Your task to perform on an android device: Clear the cart on newegg. Add dell xps to the cart on newegg Image 0: 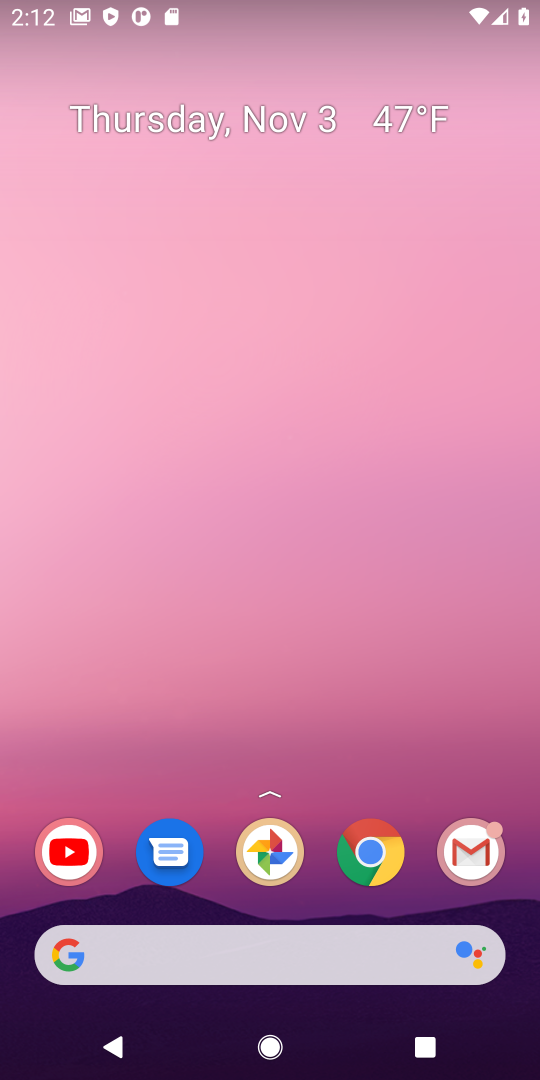
Step 0: click (363, 865)
Your task to perform on an android device: Clear the cart on newegg. Add dell xps to the cart on newegg Image 1: 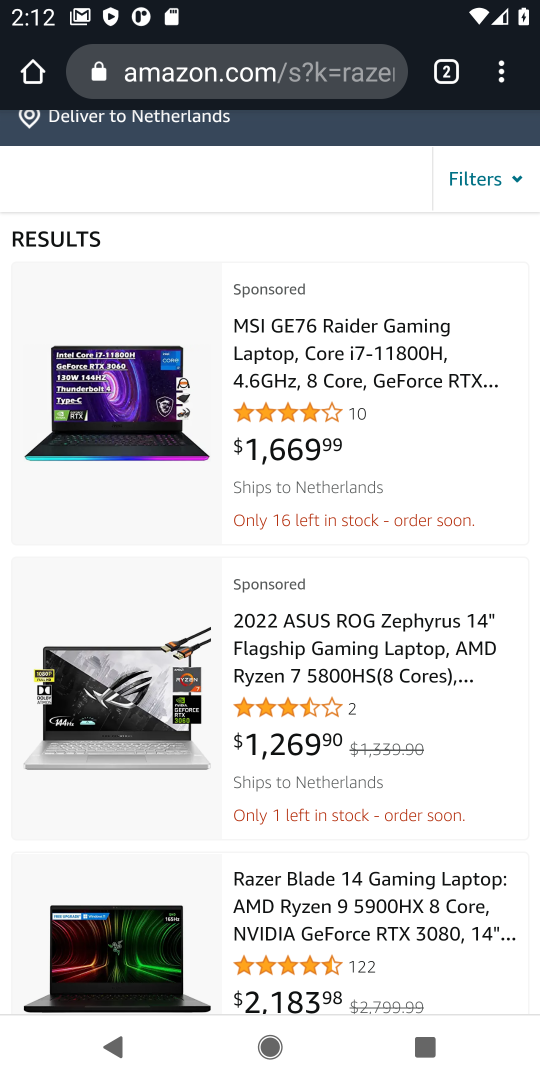
Step 1: click (196, 75)
Your task to perform on an android device: Clear the cart on newegg. Add dell xps to the cart on newegg Image 2: 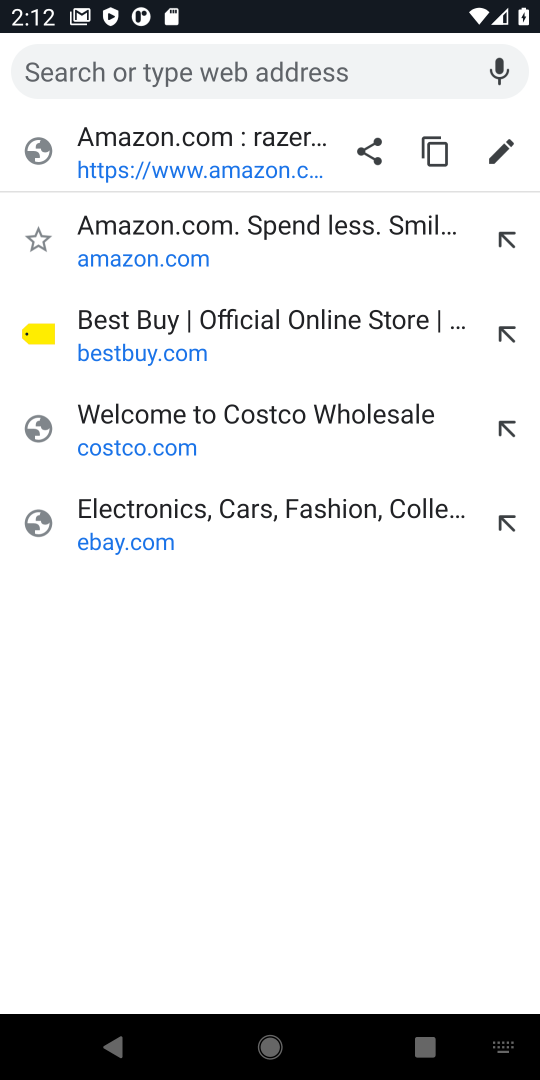
Step 2: type "newegg.com"
Your task to perform on an android device: Clear the cart on newegg. Add dell xps to the cart on newegg Image 3: 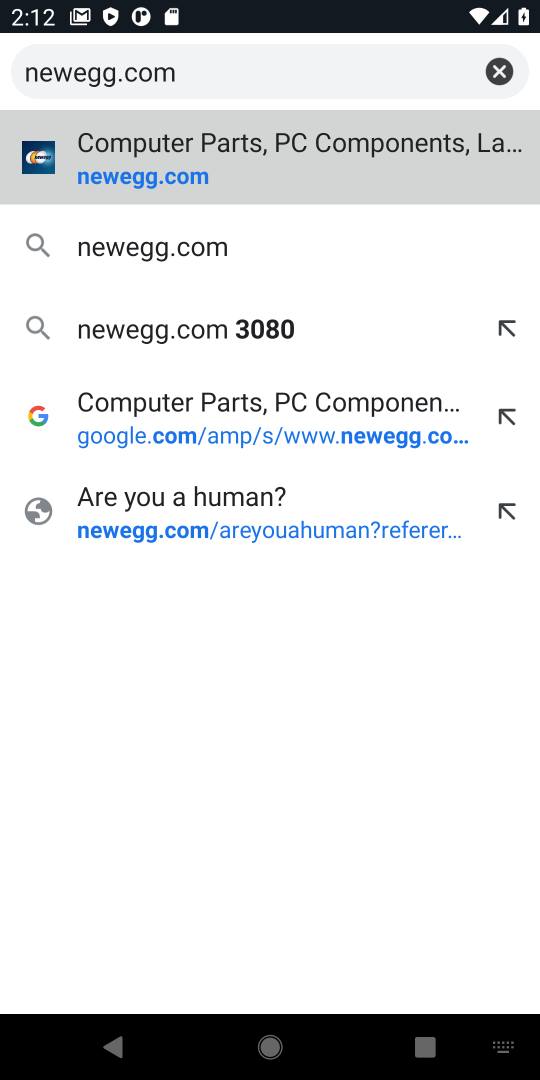
Step 3: click (105, 258)
Your task to perform on an android device: Clear the cart on newegg. Add dell xps to the cart on newegg Image 4: 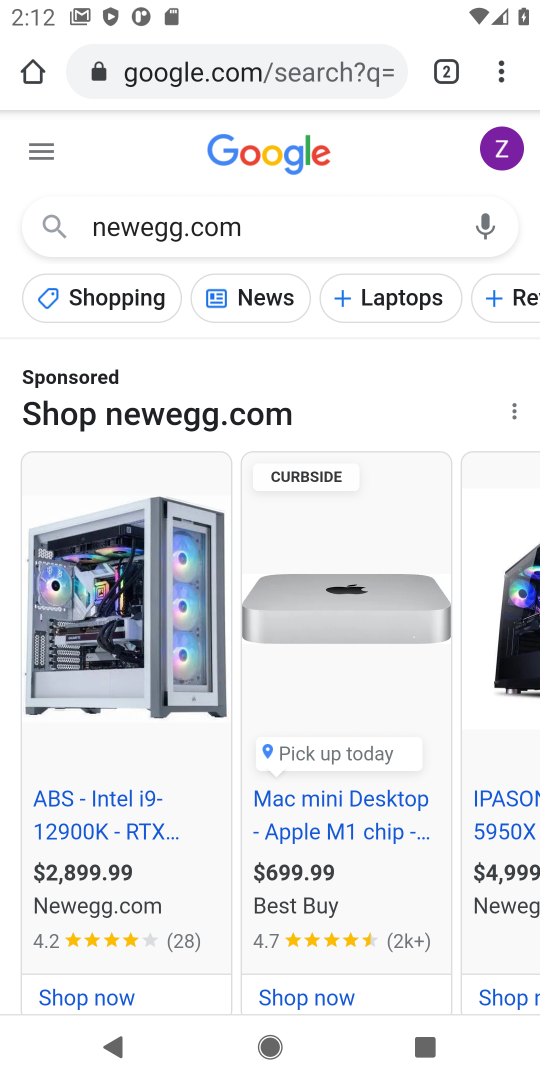
Step 4: drag from (241, 831) to (245, 293)
Your task to perform on an android device: Clear the cart on newegg. Add dell xps to the cart on newegg Image 5: 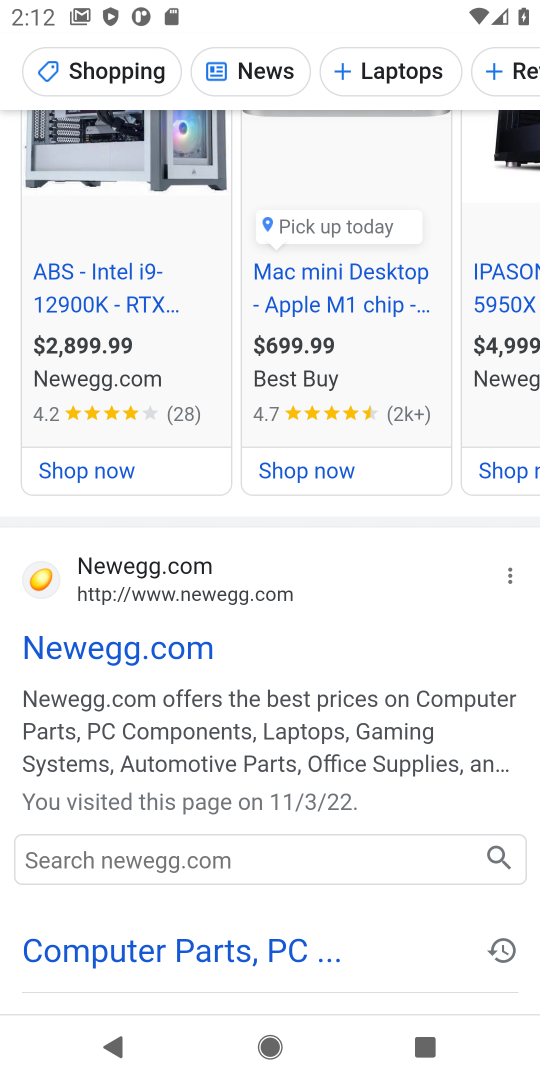
Step 5: click (104, 653)
Your task to perform on an android device: Clear the cart on newegg. Add dell xps to the cart on newegg Image 6: 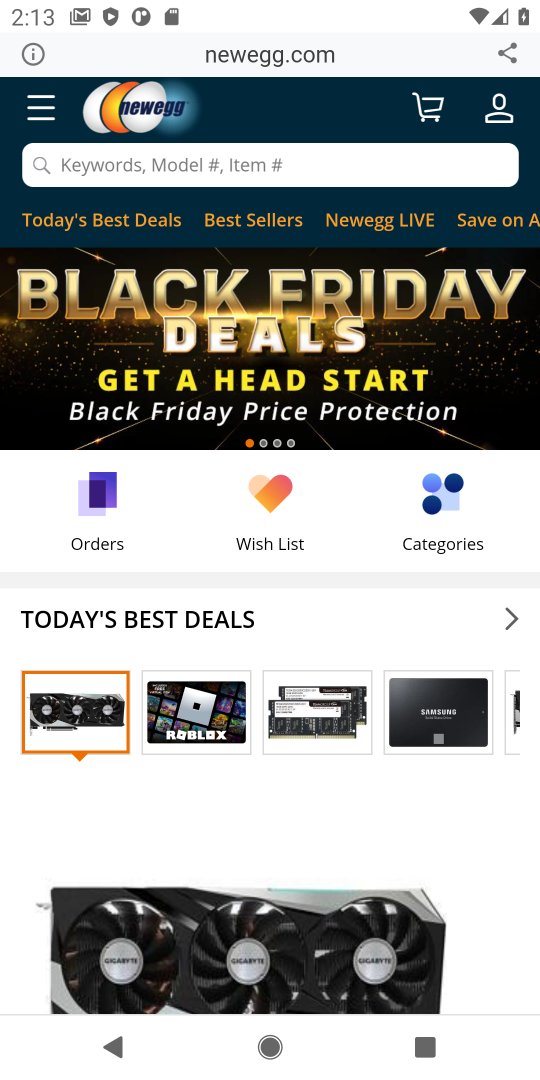
Step 6: click (431, 114)
Your task to perform on an android device: Clear the cart on newegg. Add dell xps to the cart on newegg Image 7: 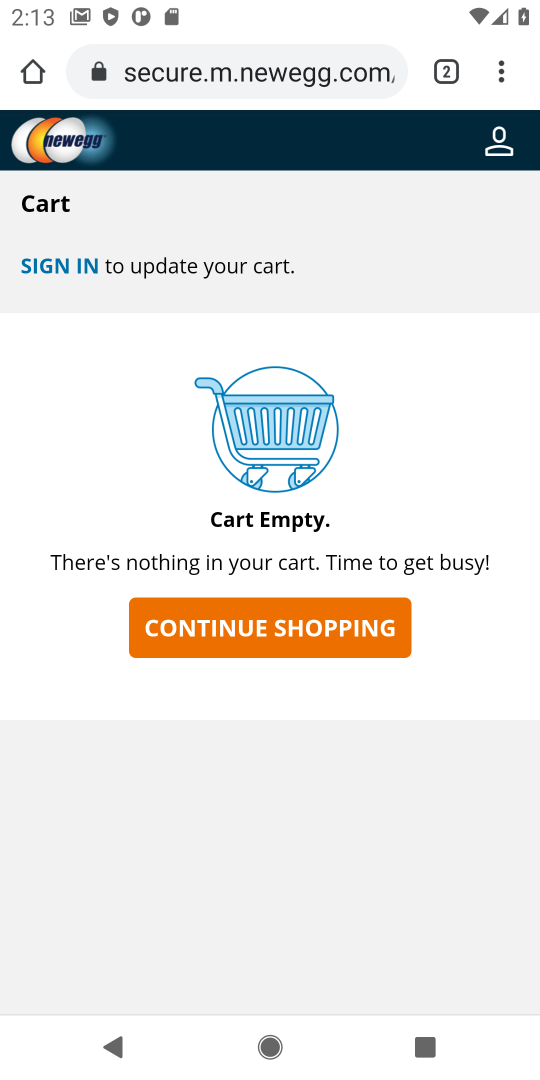
Step 7: click (231, 636)
Your task to perform on an android device: Clear the cart on newegg. Add dell xps to the cart on newegg Image 8: 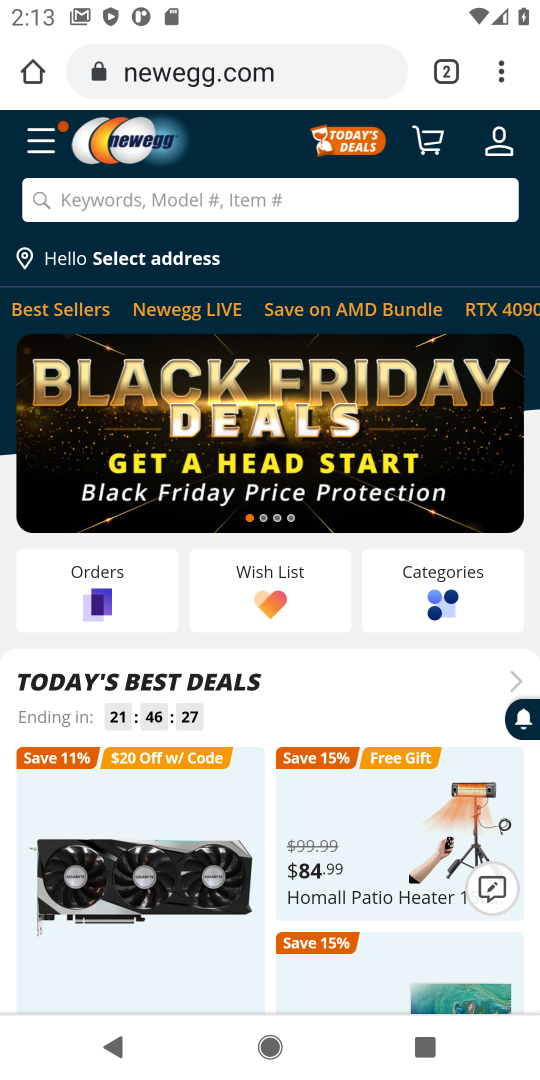
Step 8: click (139, 210)
Your task to perform on an android device: Clear the cart on newegg. Add dell xps to the cart on newegg Image 9: 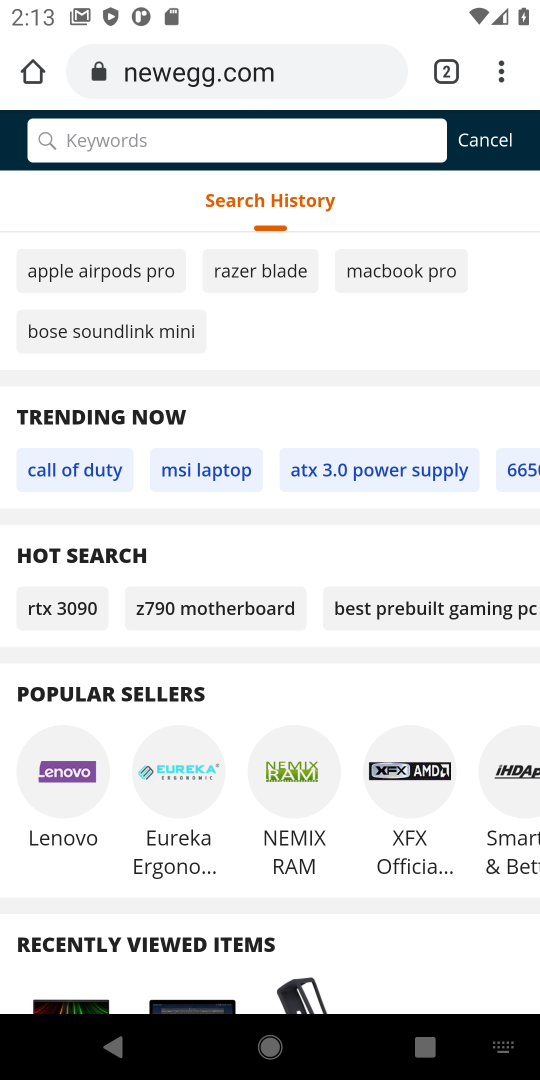
Step 9: type "dell xps"
Your task to perform on an android device: Clear the cart on newegg. Add dell xps to the cart on newegg Image 10: 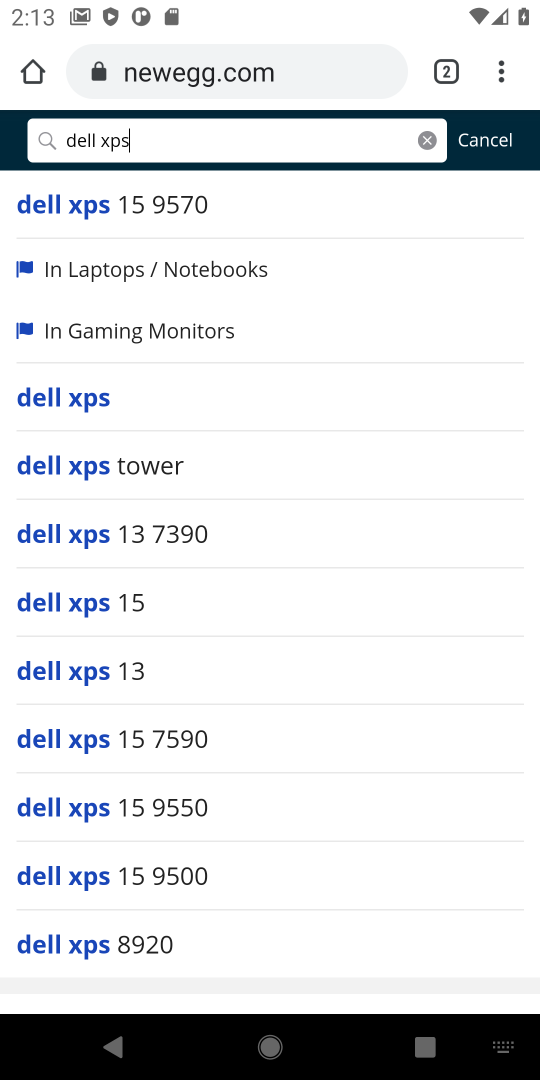
Step 10: click (55, 399)
Your task to perform on an android device: Clear the cart on newegg. Add dell xps to the cart on newegg Image 11: 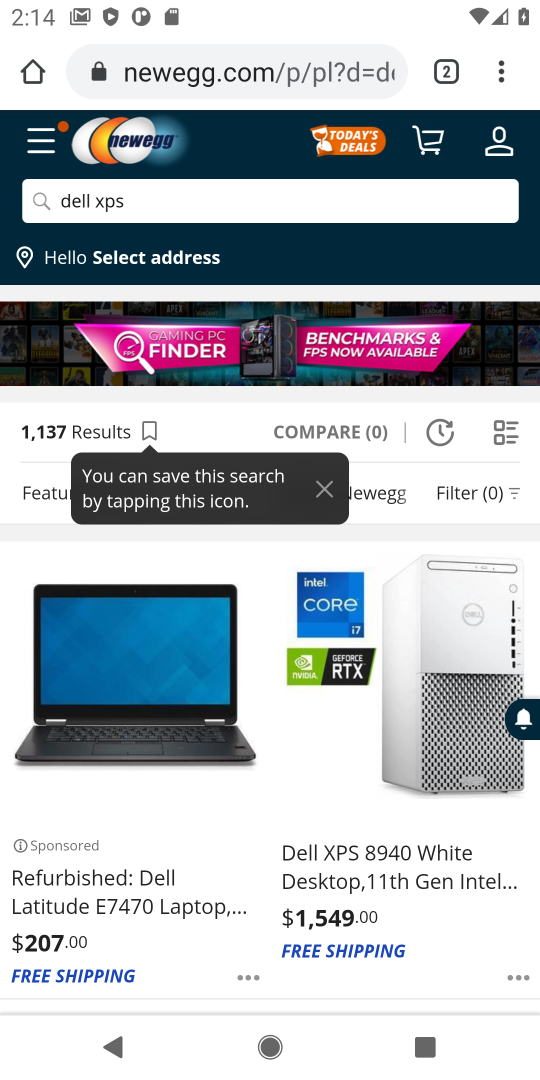
Step 11: click (396, 798)
Your task to perform on an android device: Clear the cart on newegg. Add dell xps to the cart on newegg Image 12: 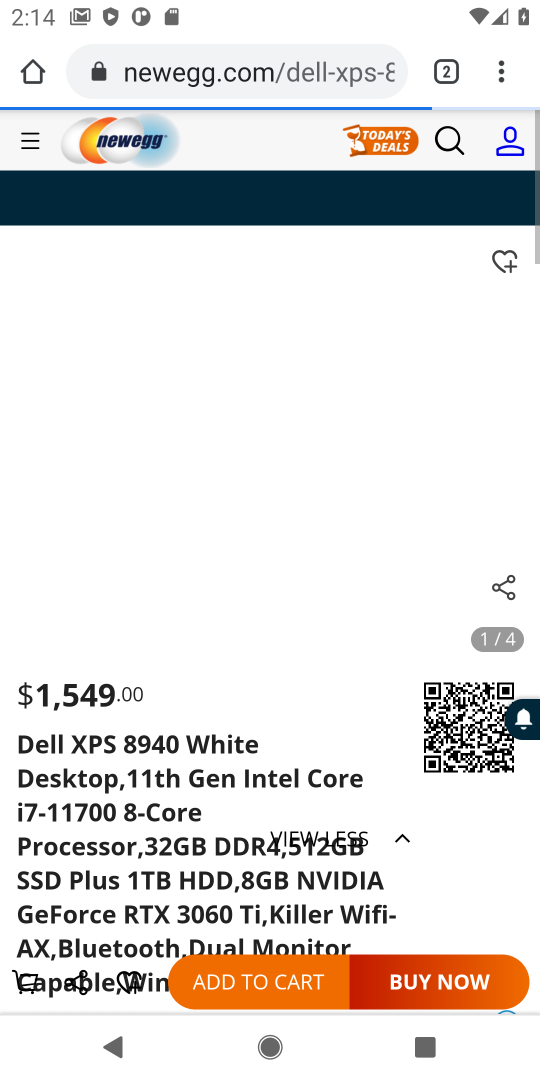
Step 12: drag from (399, 825) to (417, 590)
Your task to perform on an android device: Clear the cart on newegg. Add dell xps to the cart on newegg Image 13: 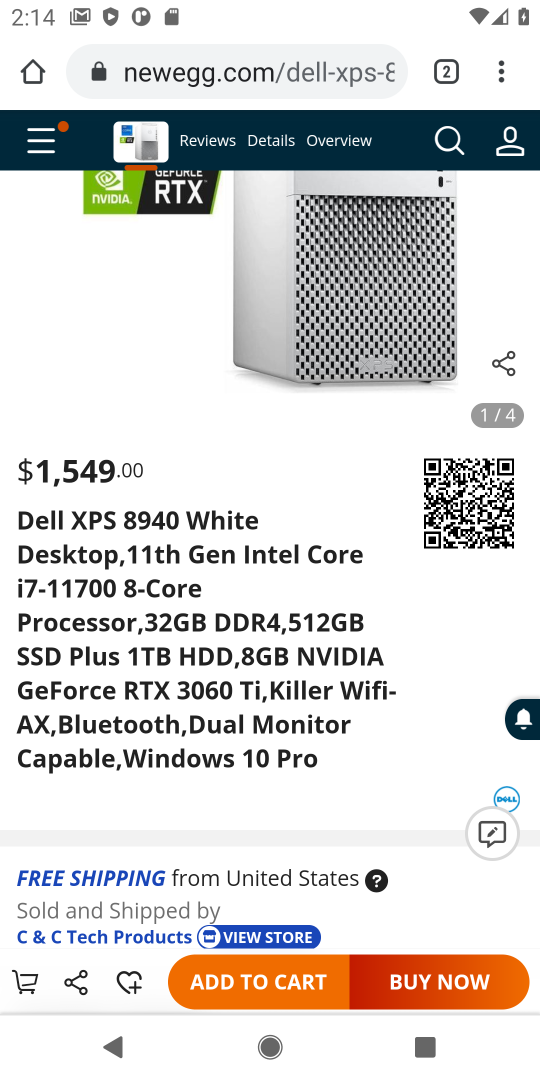
Step 13: click (274, 983)
Your task to perform on an android device: Clear the cart on newegg. Add dell xps to the cart on newegg Image 14: 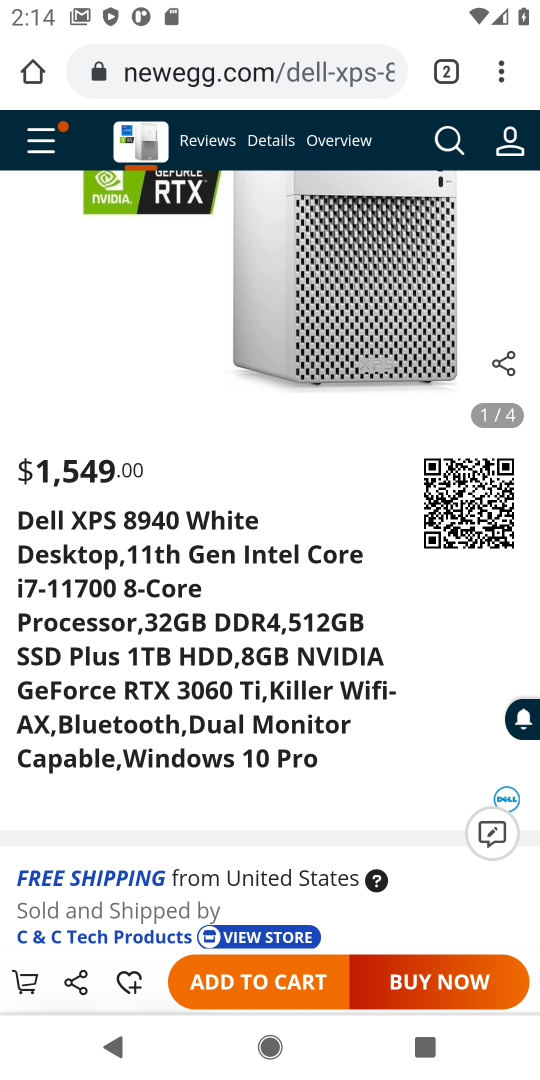
Step 14: click (237, 984)
Your task to perform on an android device: Clear the cart on newegg. Add dell xps to the cart on newegg Image 15: 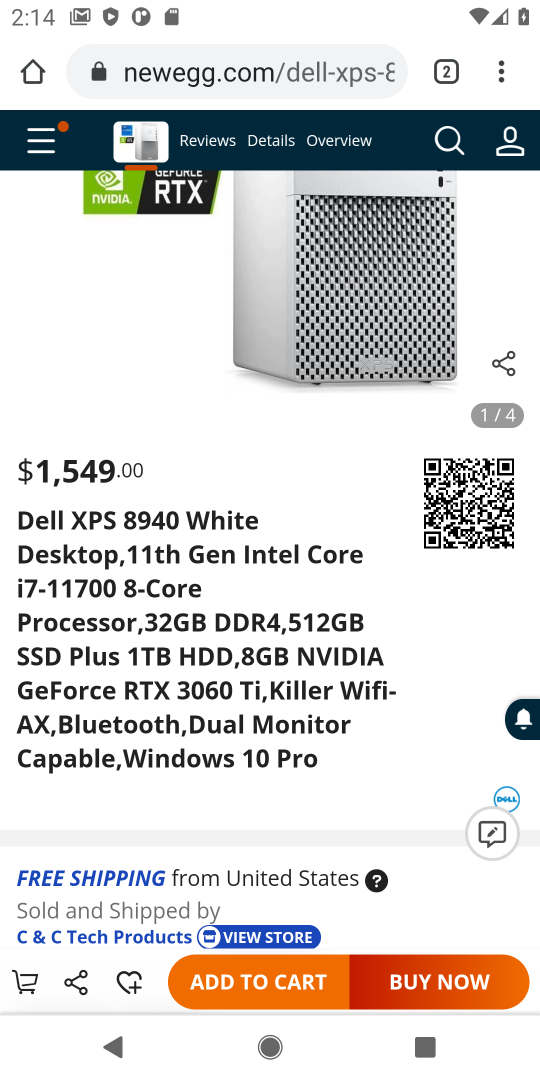
Step 15: click (266, 992)
Your task to perform on an android device: Clear the cart on newegg. Add dell xps to the cart on newegg Image 16: 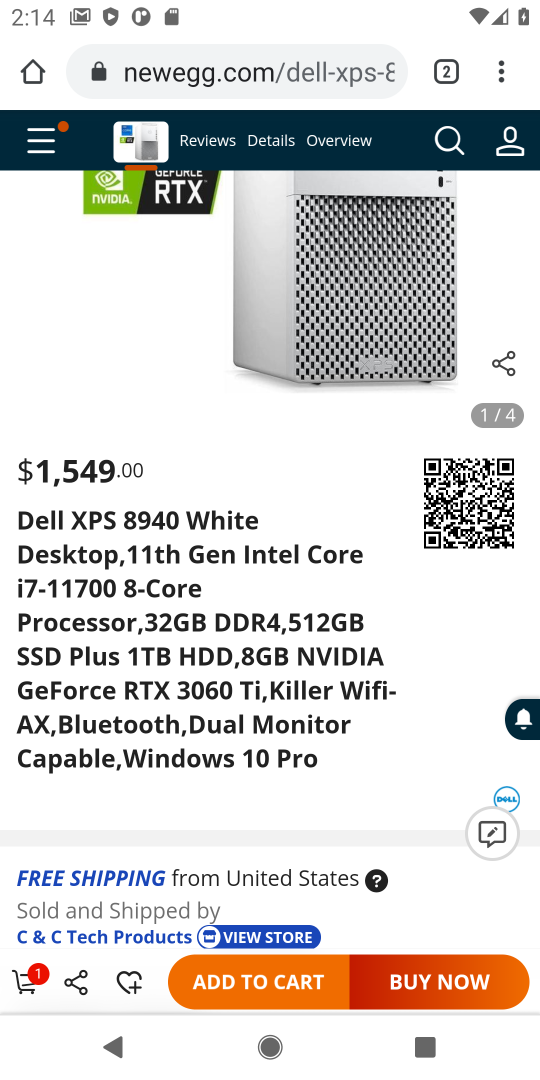
Step 16: task complete